Your task to perform on an android device: turn off translation in the chrome app Image 0: 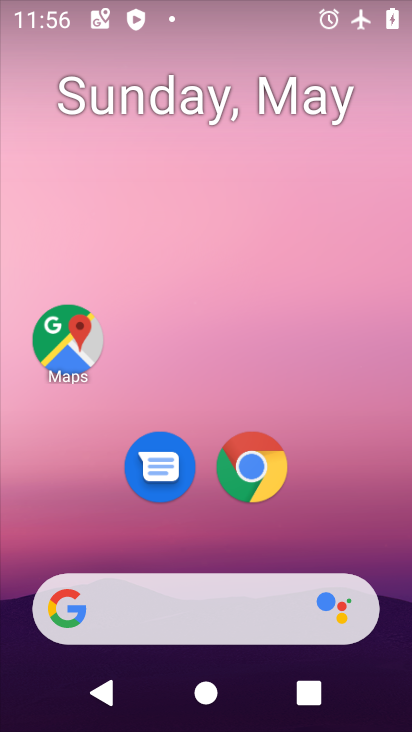
Step 0: click (269, 489)
Your task to perform on an android device: turn off translation in the chrome app Image 1: 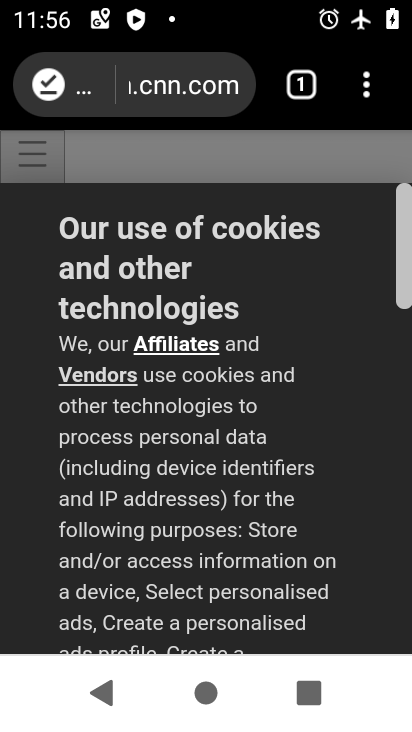
Step 1: click (367, 88)
Your task to perform on an android device: turn off translation in the chrome app Image 2: 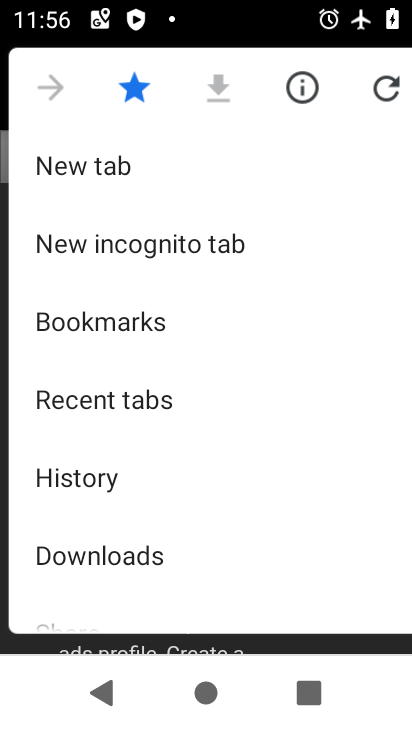
Step 2: drag from (236, 560) to (213, 180)
Your task to perform on an android device: turn off translation in the chrome app Image 3: 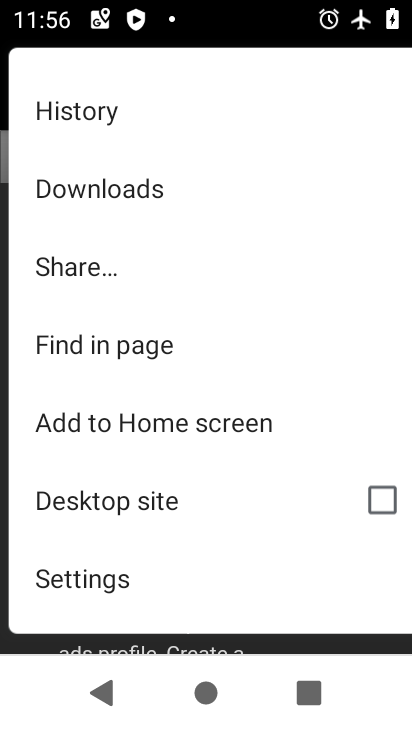
Step 3: drag from (192, 590) to (166, 218)
Your task to perform on an android device: turn off translation in the chrome app Image 4: 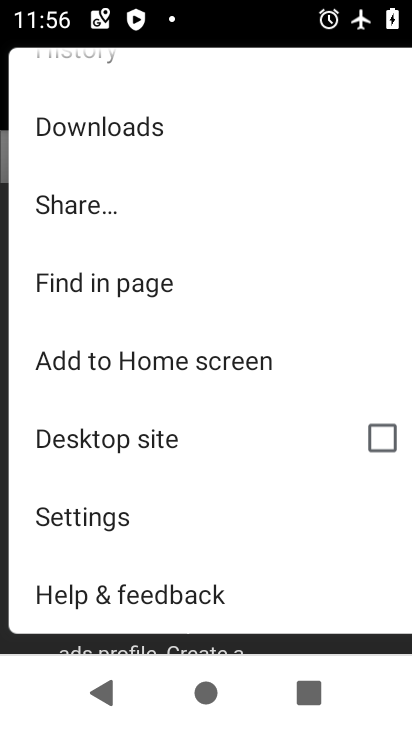
Step 4: click (68, 522)
Your task to perform on an android device: turn off translation in the chrome app Image 5: 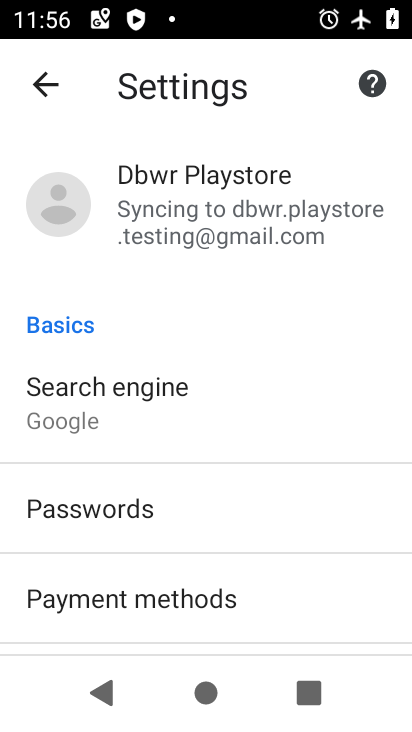
Step 5: drag from (267, 593) to (277, 165)
Your task to perform on an android device: turn off translation in the chrome app Image 6: 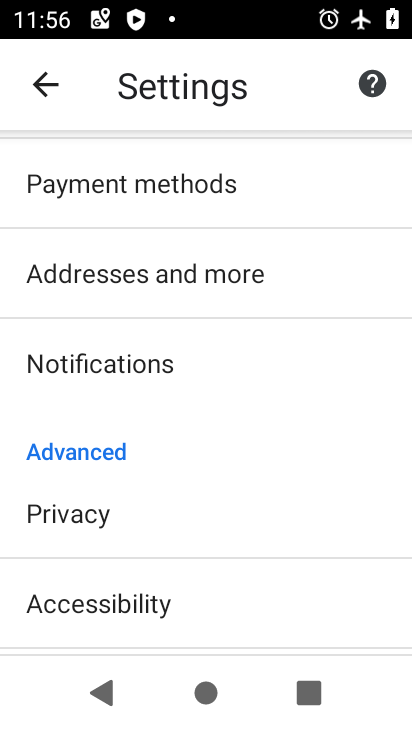
Step 6: drag from (208, 579) to (230, 169)
Your task to perform on an android device: turn off translation in the chrome app Image 7: 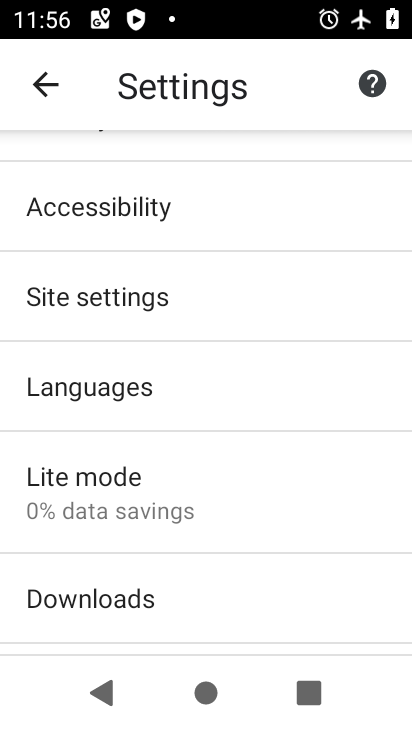
Step 7: click (74, 392)
Your task to perform on an android device: turn off translation in the chrome app Image 8: 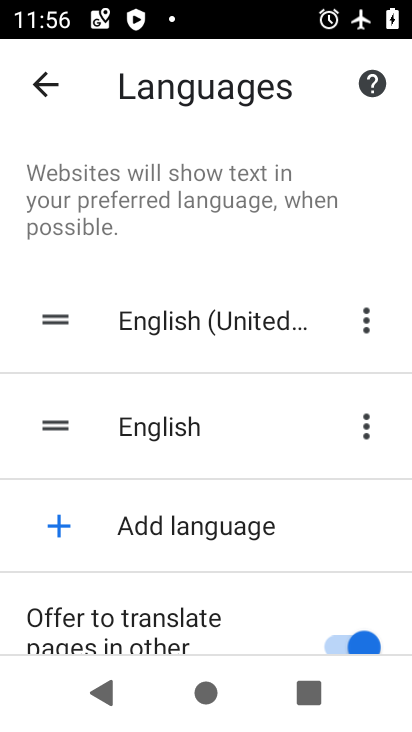
Step 8: drag from (218, 517) to (232, 238)
Your task to perform on an android device: turn off translation in the chrome app Image 9: 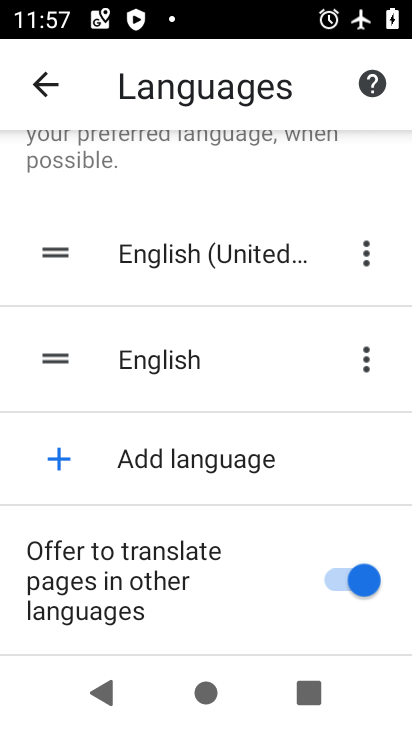
Step 9: click (360, 571)
Your task to perform on an android device: turn off translation in the chrome app Image 10: 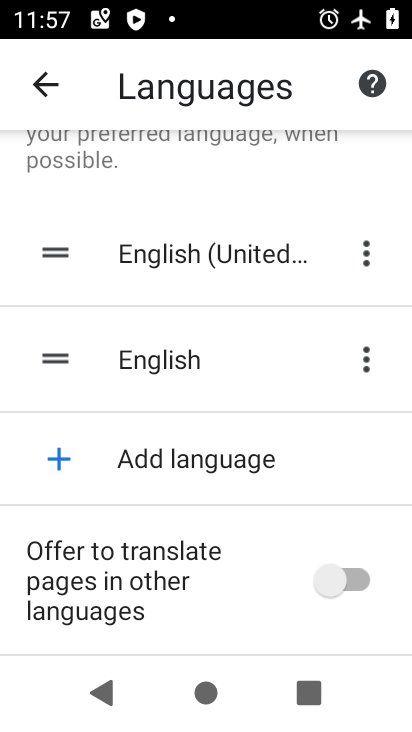
Step 10: task complete